Your task to perform on an android device: Open the Play Movies app and select the watchlist tab. Image 0: 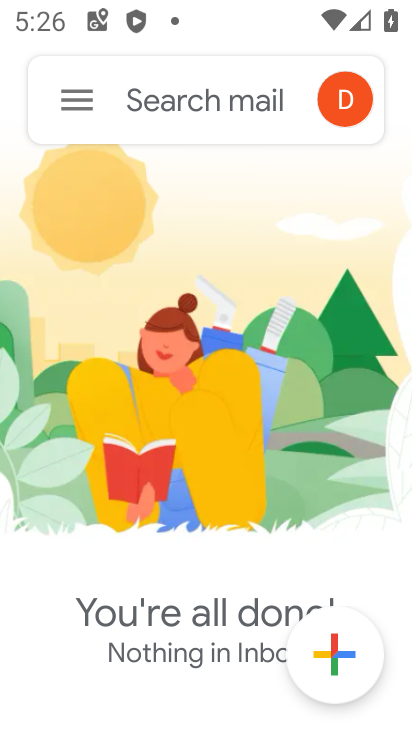
Step 0: press home button
Your task to perform on an android device: Open the Play Movies app and select the watchlist tab. Image 1: 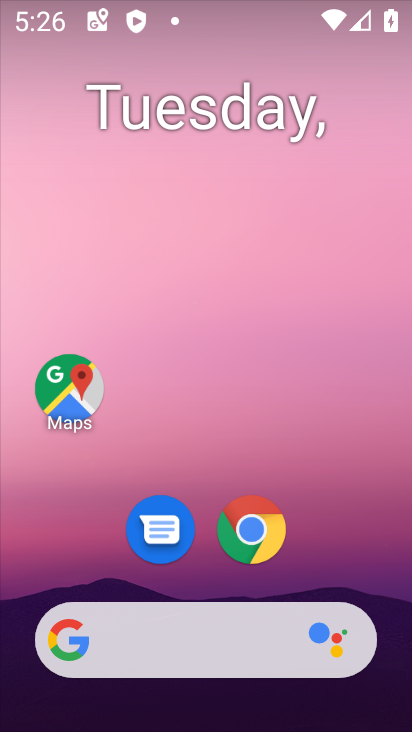
Step 1: drag from (351, 257) to (366, 31)
Your task to perform on an android device: Open the Play Movies app and select the watchlist tab. Image 2: 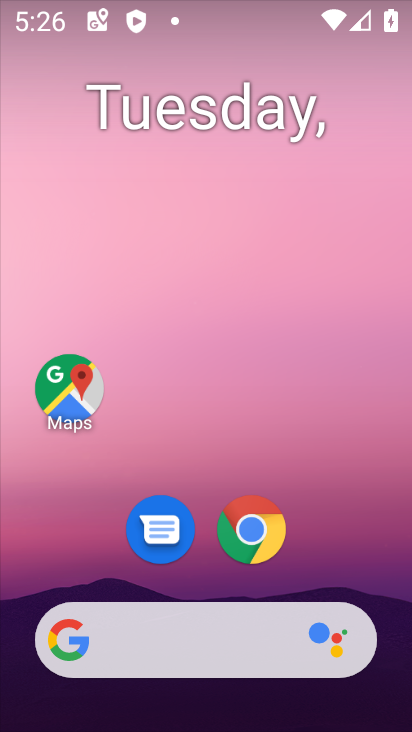
Step 2: drag from (328, 315) to (319, 158)
Your task to perform on an android device: Open the Play Movies app and select the watchlist tab. Image 3: 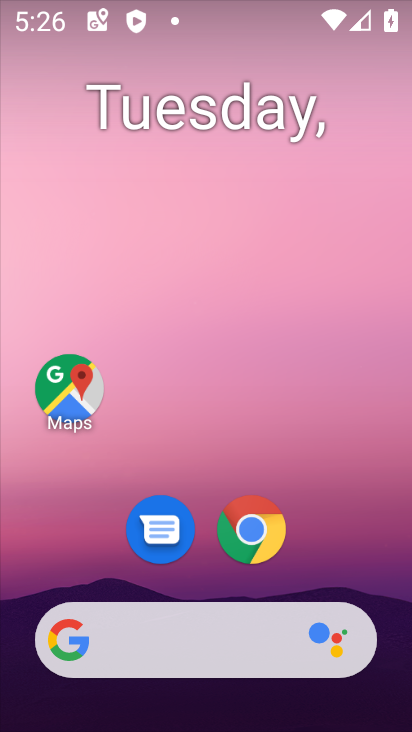
Step 3: drag from (361, 236) to (358, 77)
Your task to perform on an android device: Open the Play Movies app and select the watchlist tab. Image 4: 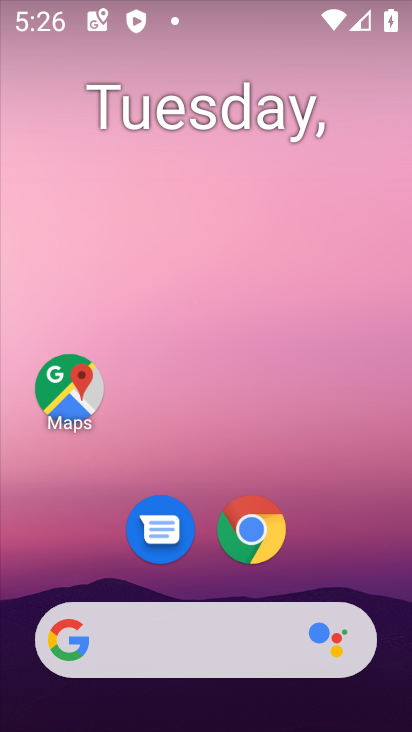
Step 4: drag from (390, 610) to (310, 112)
Your task to perform on an android device: Open the Play Movies app and select the watchlist tab. Image 5: 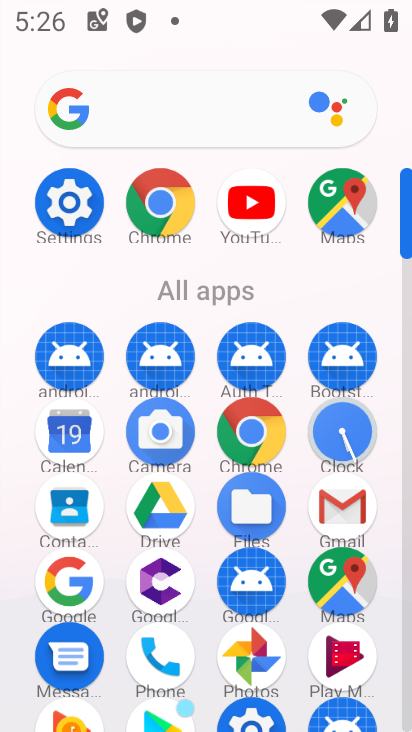
Step 5: click (328, 667)
Your task to perform on an android device: Open the Play Movies app and select the watchlist tab. Image 6: 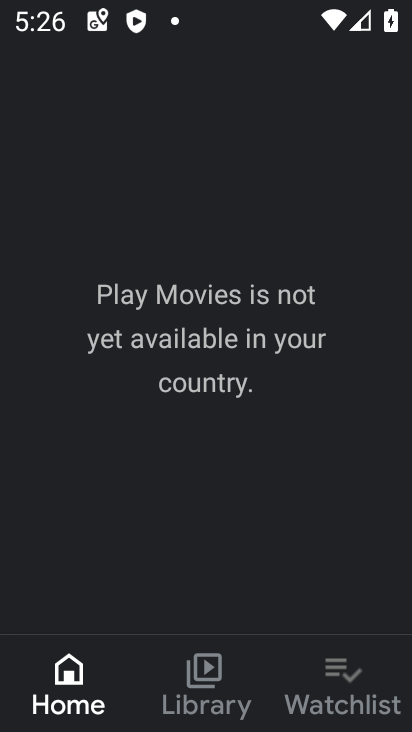
Step 6: click (324, 679)
Your task to perform on an android device: Open the Play Movies app and select the watchlist tab. Image 7: 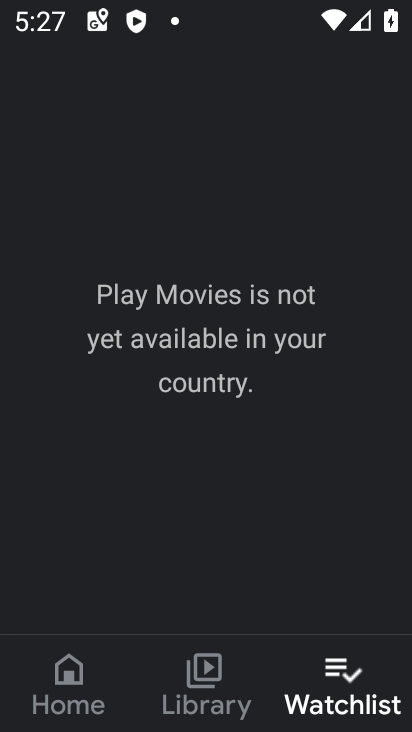
Step 7: task complete